Your task to perform on an android device: delete browsing data in the chrome app Image 0: 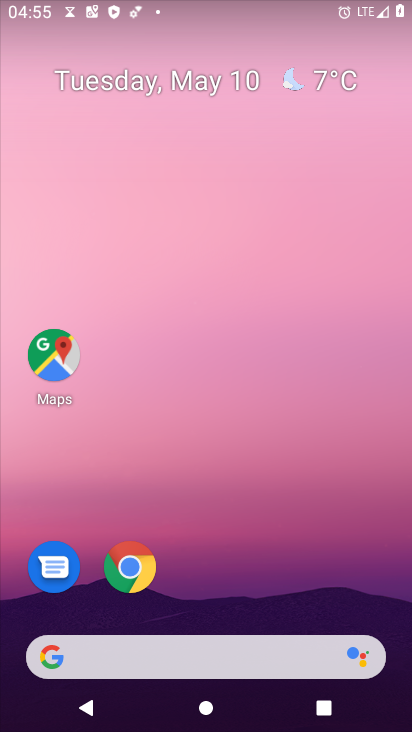
Step 0: click (133, 565)
Your task to perform on an android device: delete browsing data in the chrome app Image 1: 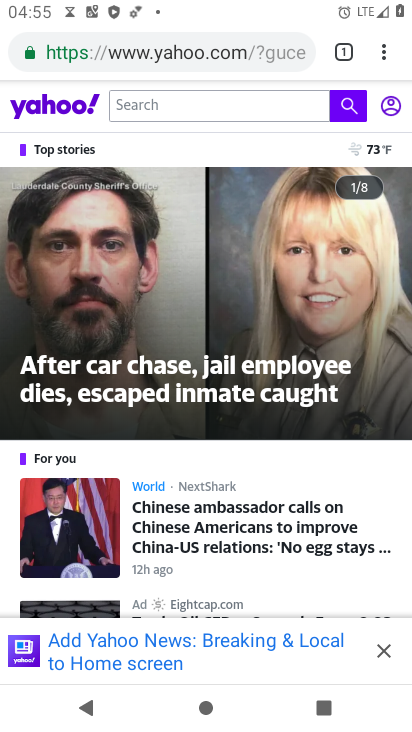
Step 1: click (383, 52)
Your task to perform on an android device: delete browsing data in the chrome app Image 2: 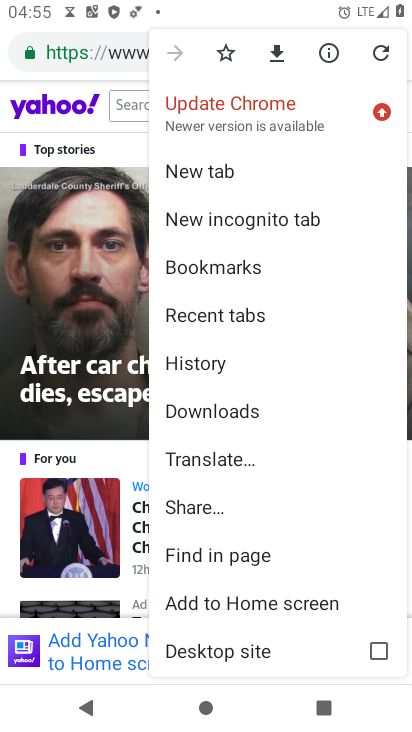
Step 2: drag from (251, 572) to (298, 464)
Your task to perform on an android device: delete browsing data in the chrome app Image 3: 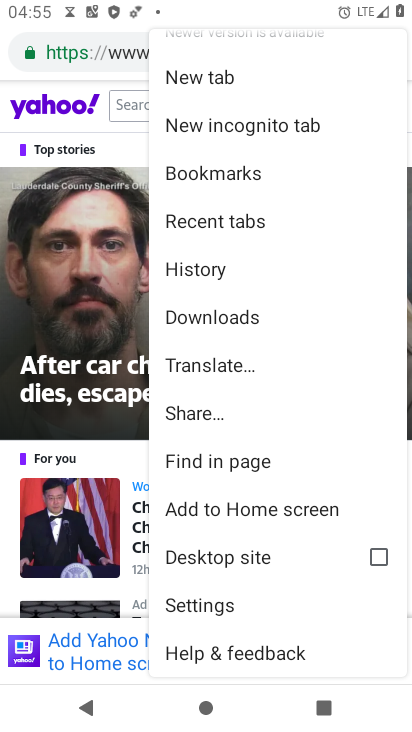
Step 3: click (227, 610)
Your task to perform on an android device: delete browsing data in the chrome app Image 4: 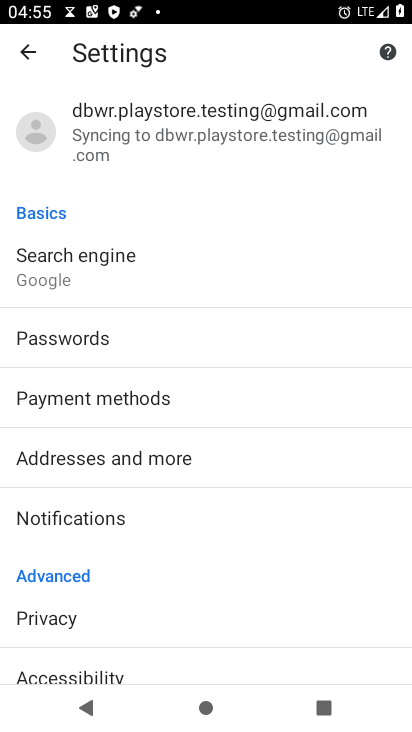
Step 4: drag from (133, 583) to (162, 447)
Your task to perform on an android device: delete browsing data in the chrome app Image 5: 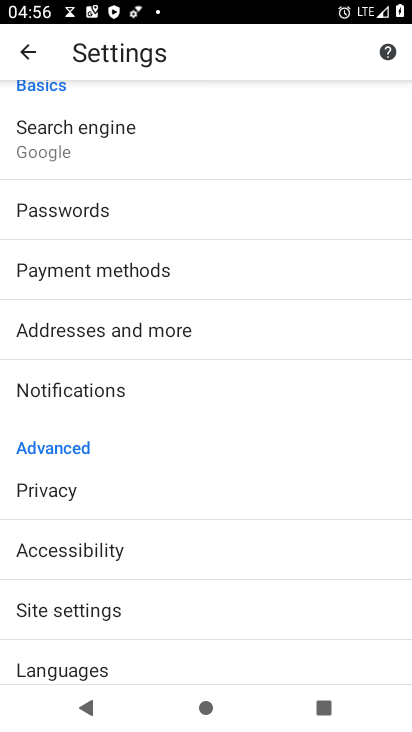
Step 5: click (59, 492)
Your task to perform on an android device: delete browsing data in the chrome app Image 6: 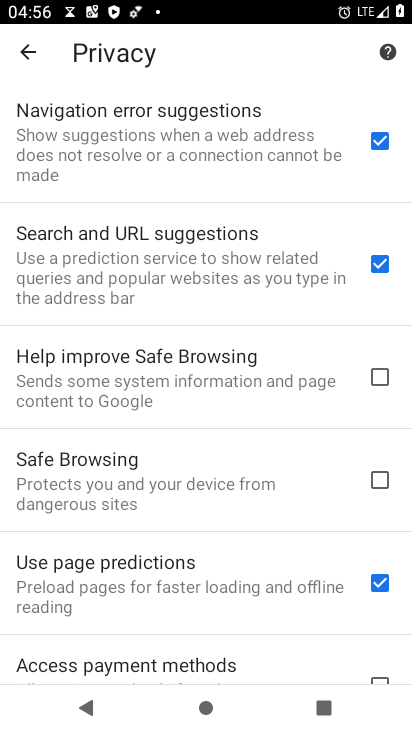
Step 6: drag from (108, 627) to (167, 480)
Your task to perform on an android device: delete browsing data in the chrome app Image 7: 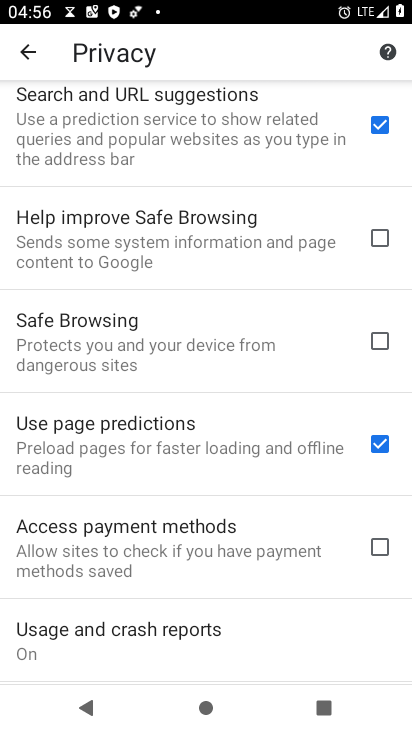
Step 7: drag from (135, 610) to (176, 500)
Your task to perform on an android device: delete browsing data in the chrome app Image 8: 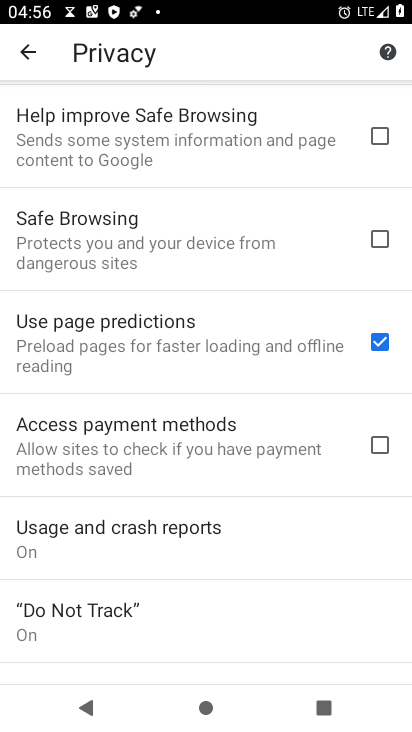
Step 8: drag from (143, 638) to (171, 494)
Your task to perform on an android device: delete browsing data in the chrome app Image 9: 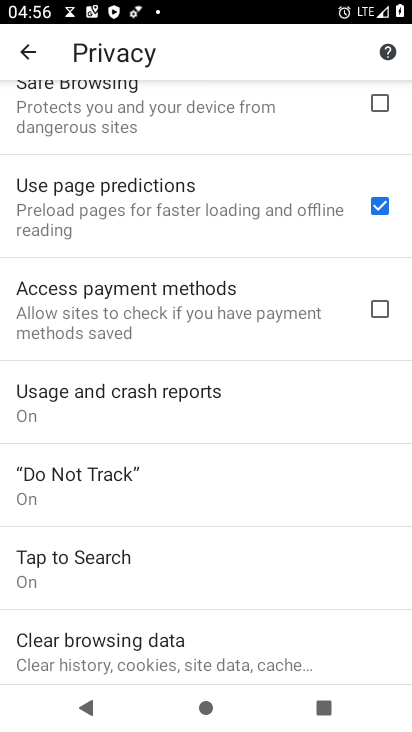
Step 9: click (123, 636)
Your task to perform on an android device: delete browsing data in the chrome app Image 10: 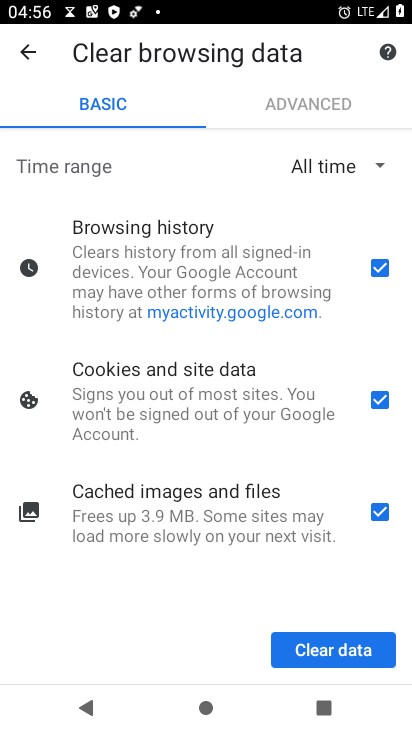
Step 10: click (321, 646)
Your task to perform on an android device: delete browsing data in the chrome app Image 11: 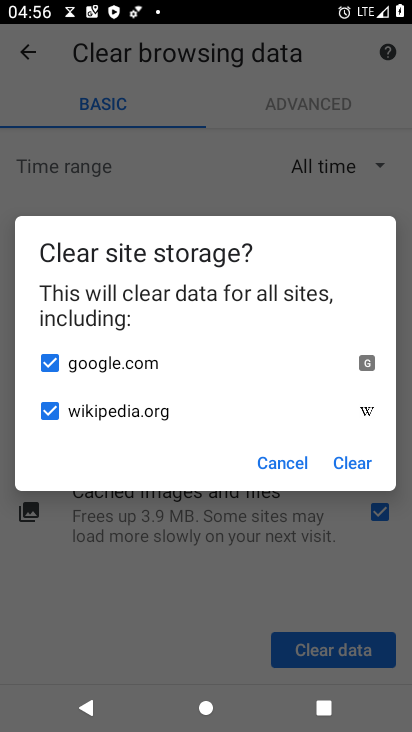
Step 11: click (361, 461)
Your task to perform on an android device: delete browsing data in the chrome app Image 12: 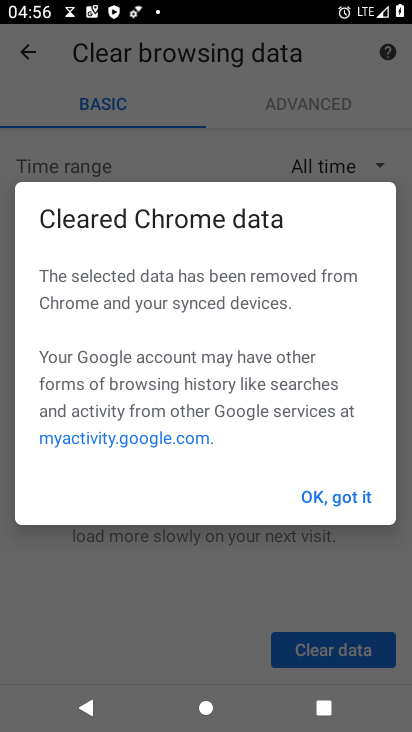
Step 12: click (359, 491)
Your task to perform on an android device: delete browsing data in the chrome app Image 13: 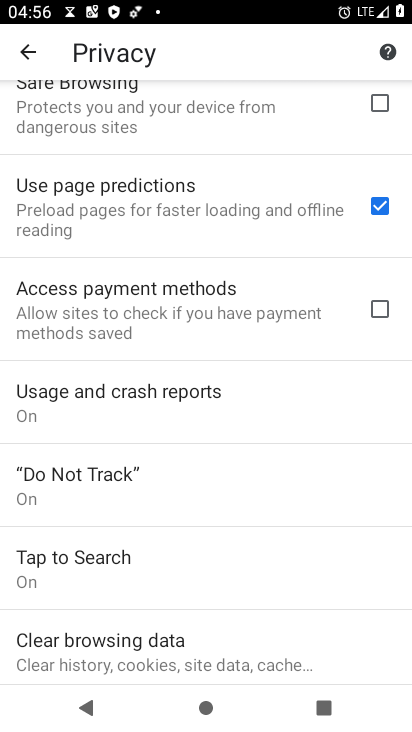
Step 13: task complete